Your task to perform on an android device: View the shopping cart on target. Search for razer thresher on target, select the first entry, and add it to the cart. Image 0: 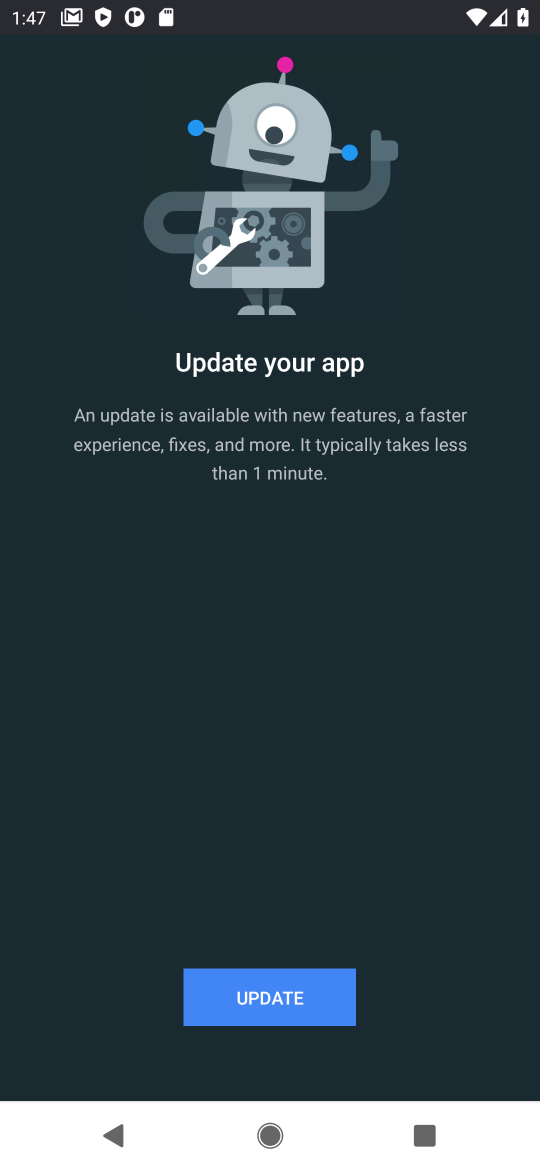
Step 0: press home button
Your task to perform on an android device: View the shopping cart on target. Search for razer thresher on target, select the first entry, and add it to the cart. Image 1: 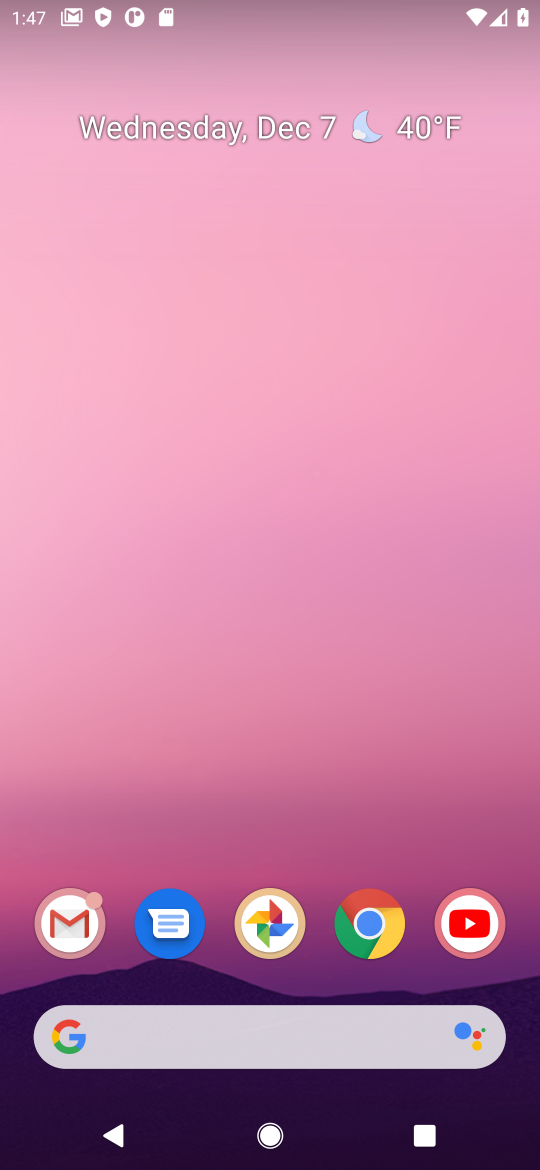
Step 1: click (374, 924)
Your task to perform on an android device: View the shopping cart on target. Search for razer thresher on target, select the first entry, and add it to the cart. Image 2: 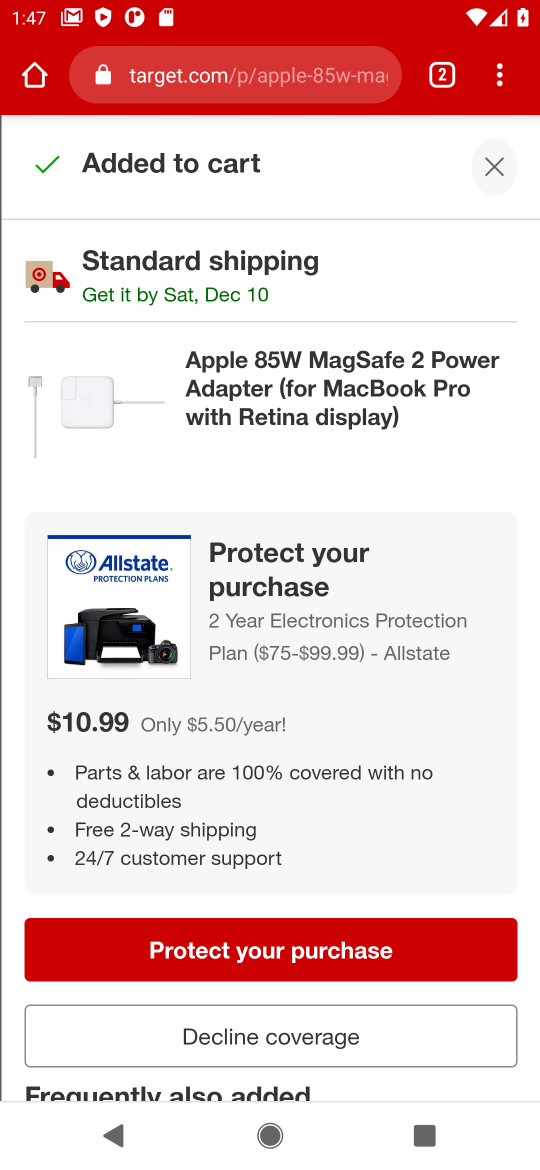
Step 2: click (494, 161)
Your task to perform on an android device: View the shopping cart on target. Search for razer thresher on target, select the first entry, and add it to the cart. Image 3: 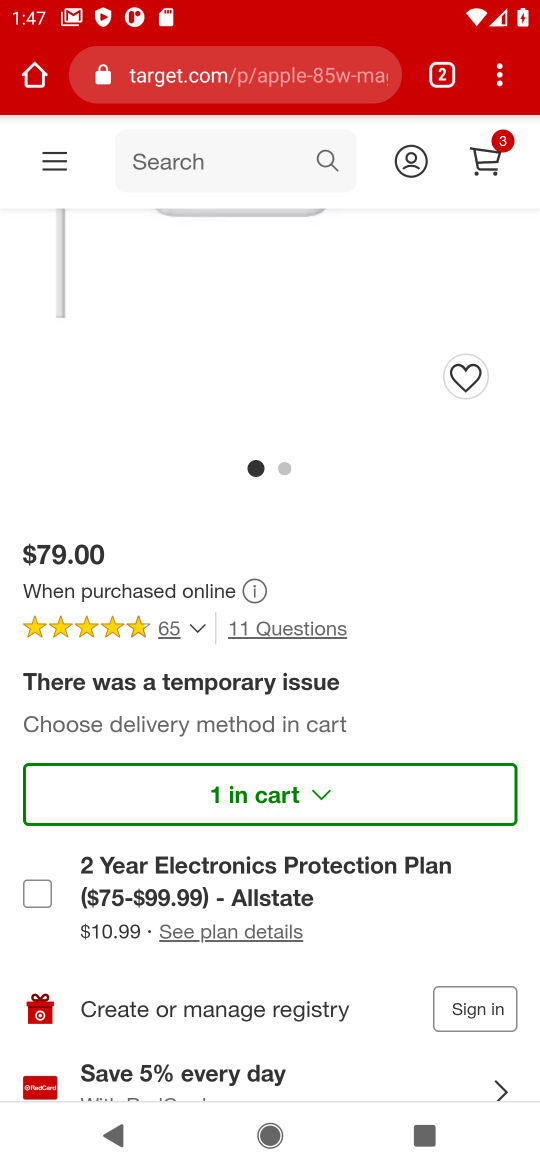
Step 3: click (324, 153)
Your task to perform on an android device: View the shopping cart on target. Search for razer thresher on target, select the first entry, and add it to the cart. Image 4: 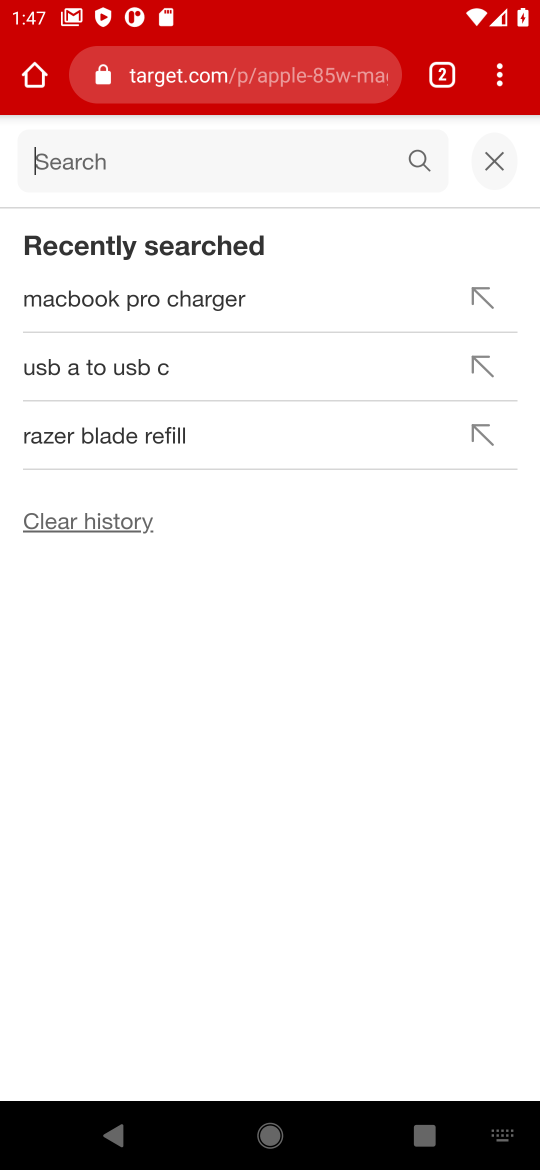
Step 4: click (304, 170)
Your task to perform on an android device: View the shopping cart on target. Search for razer thresher on target, select the first entry, and add it to the cart. Image 5: 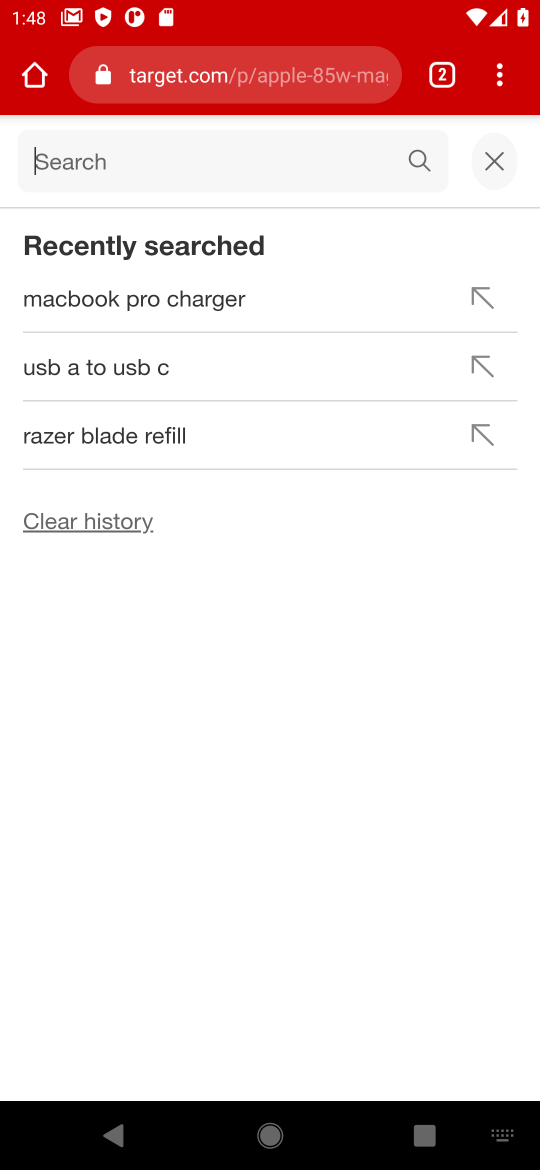
Step 5: type "razer thresher"
Your task to perform on an android device: View the shopping cart on target. Search for razer thresher on target, select the first entry, and add it to the cart. Image 6: 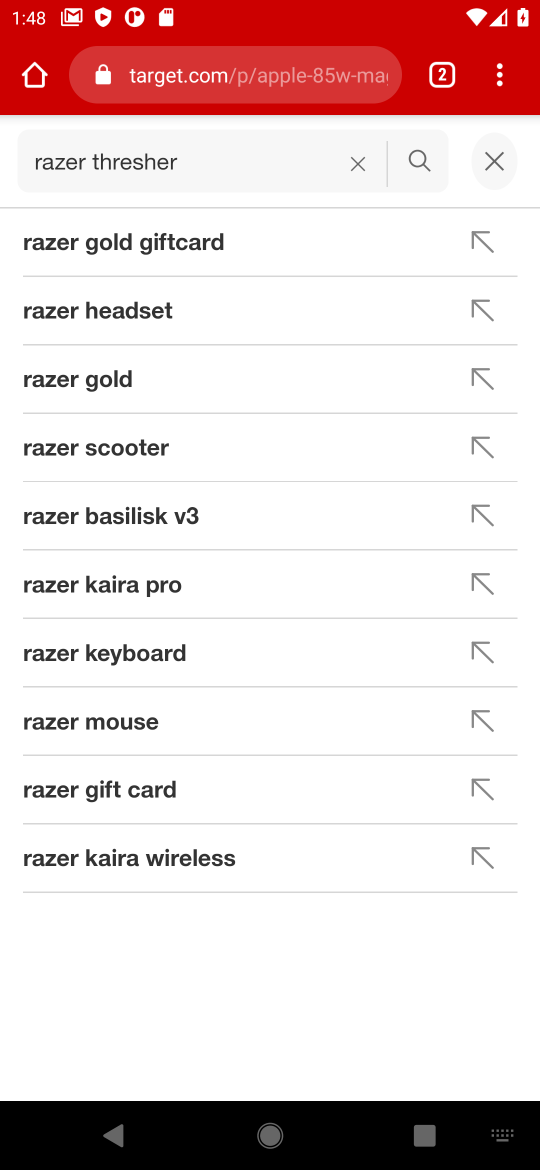
Step 6: click (148, 239)
Your task to perform on an android device: View the shopping cart on target. Search for razer thresher on target, select the first entry, and add it to the cart. Image 7: 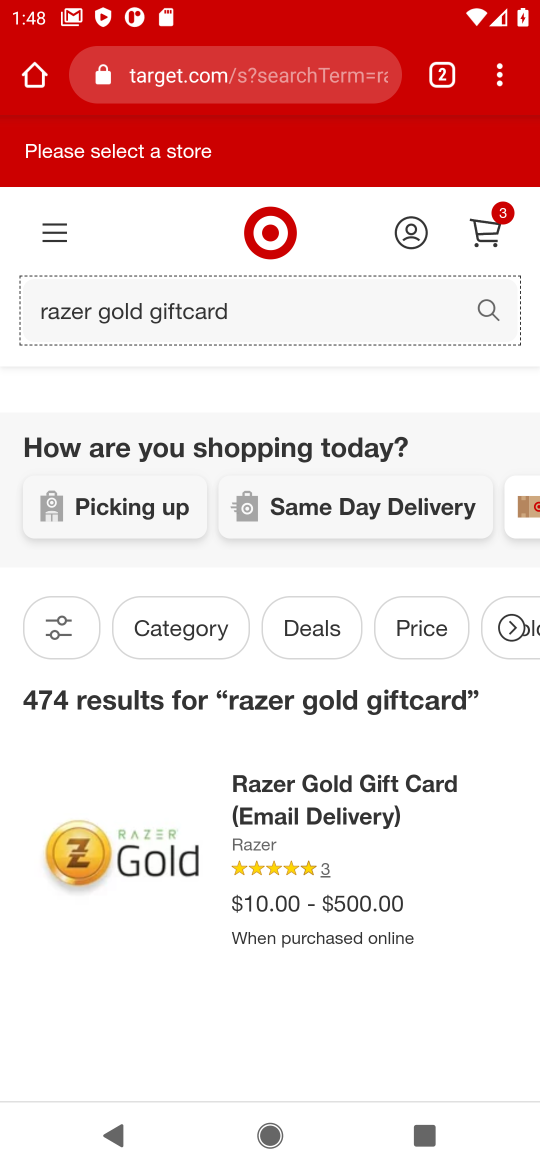
Step 7: click (149, 858)
Your task to perform on an android device: View the shopping cart on target. Search for razer thresher on target, select the first entry, and add it to the cart. Image 8: 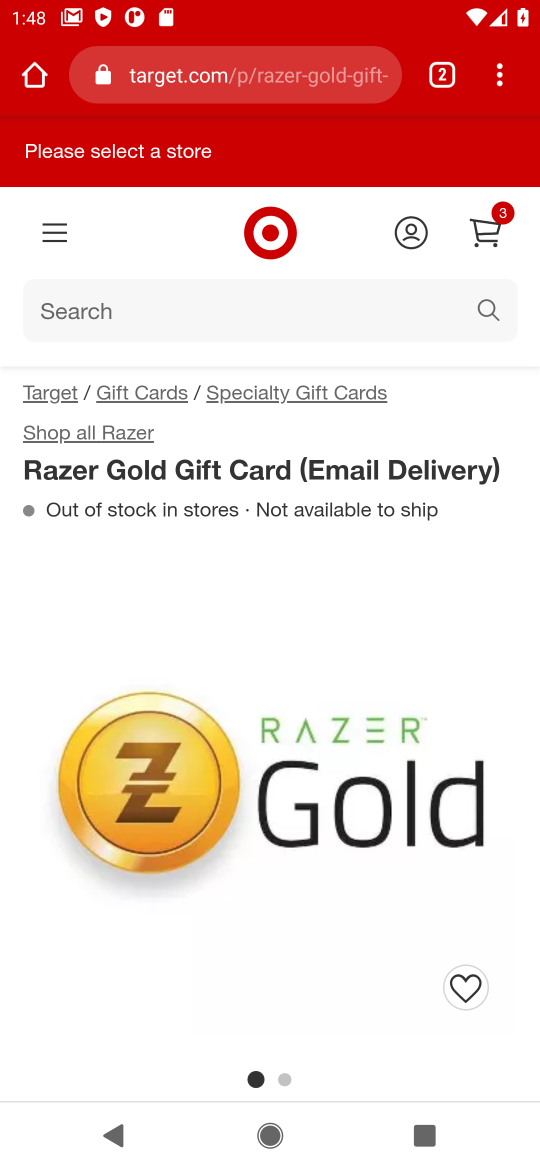
Step 8: drag from (298, 972) to (267, 189)
Your task to perform on an android device: View the shopping cart on target. Search for razer thresher on target, select the first entry, and add it to the cart. Image 9: 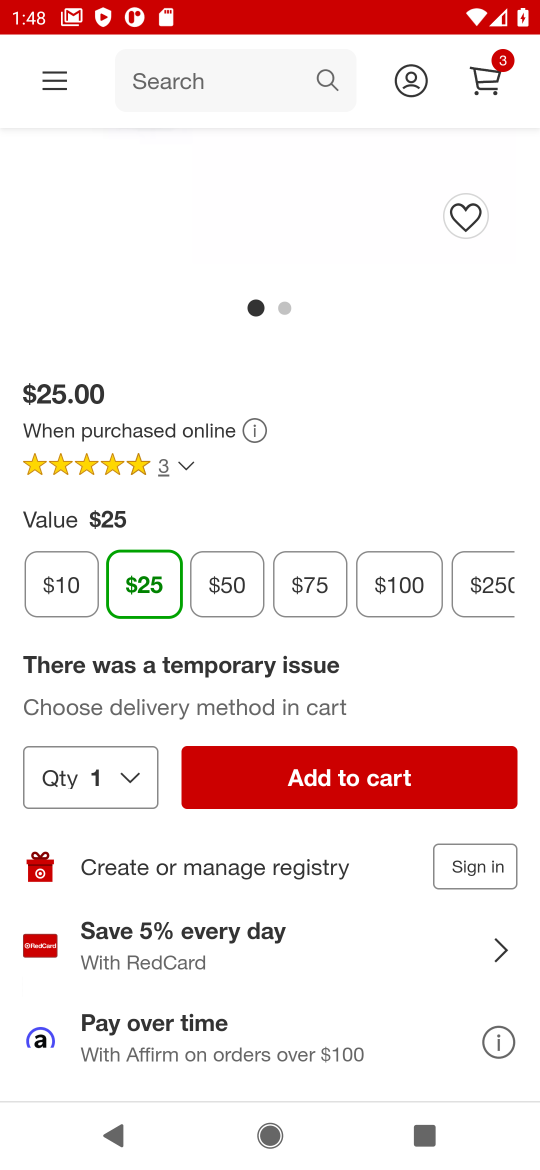
Step 9: click (390, 775)
Your task to perform on an android device: View the shopping cart on target. Search for razer thresher on target, select the first entry, and add it to the cart. Image 10: 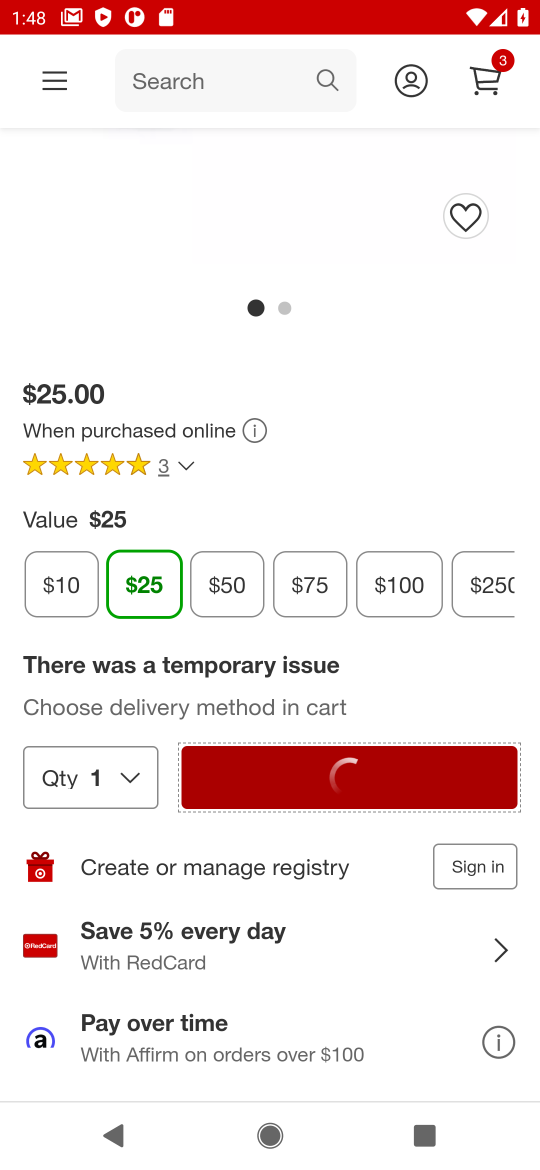
Step 10: task complete